Your task to perform on an android device: toggle data saver in the chrome app Image 0: 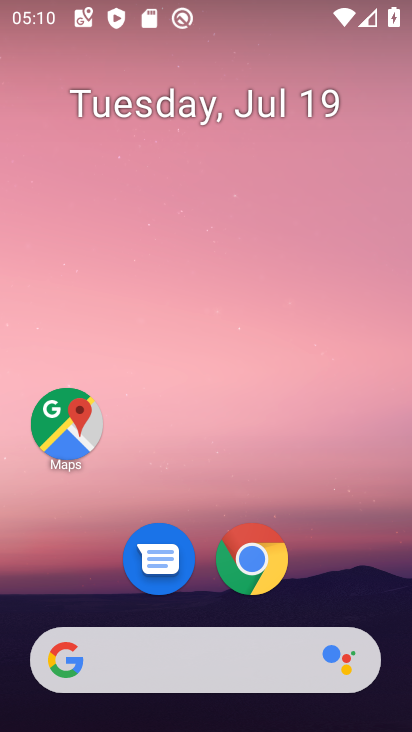
Step 0: click (249, 550)
Your task to perform on an android device: toggle data saver in the chrome app Image 1: 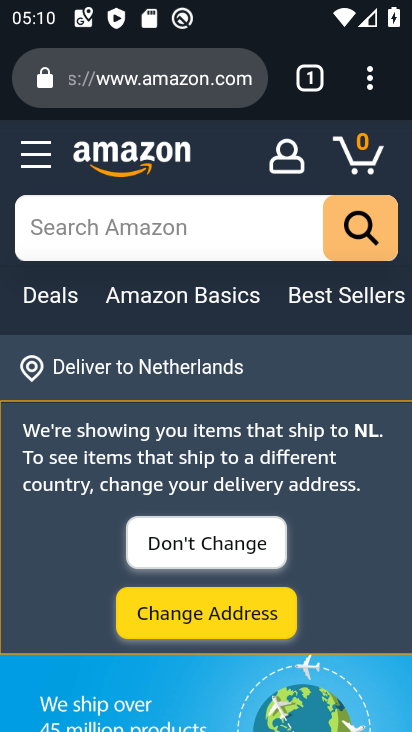
Step 1: drag from (364, 92) to (58, 614)
Your task to perform on an android device: toggle data saver in the chrome app Image 2: 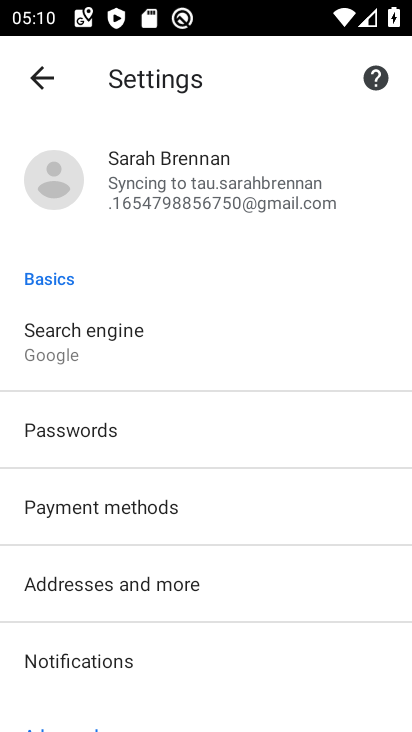
Step 2: drag from (162, 623) to (233, 49)
Your task to perform on an android device: toggle data saver in the chrome app Image 3: 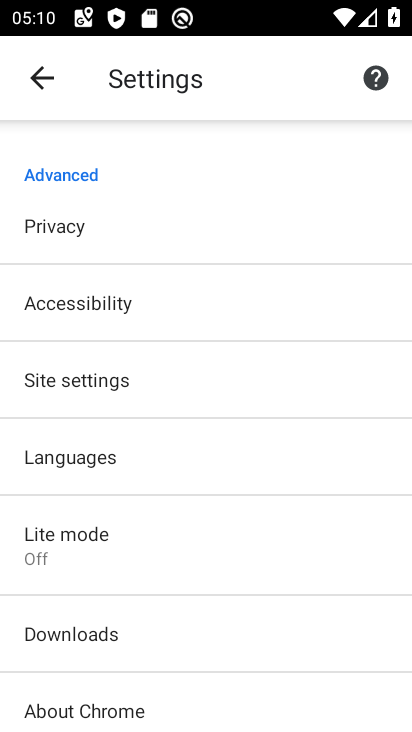
Step 3: click (94, 561)
Your task to perform on an android device: toggle data saver in the chrome app Image 4: 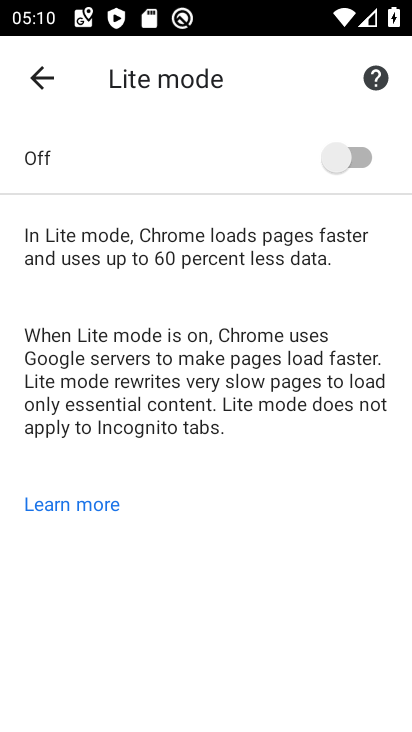
Step 4: click (330, 163)
Your task to perform on an android device: toggle data saver in the chrome app Image 5: 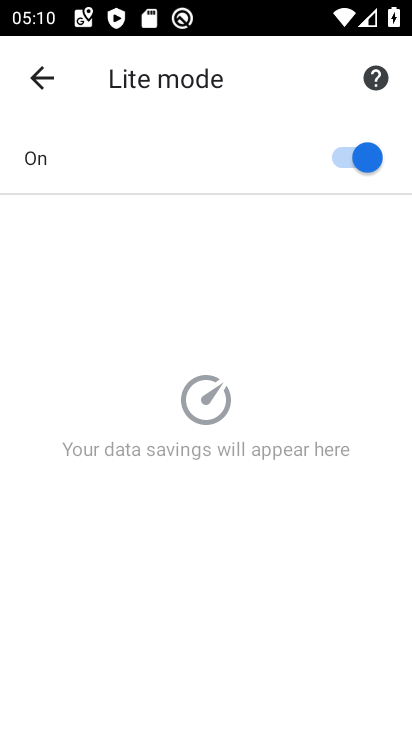
Step 5: task complete